Your task to perform on an android device: open wifi settings Image 0: 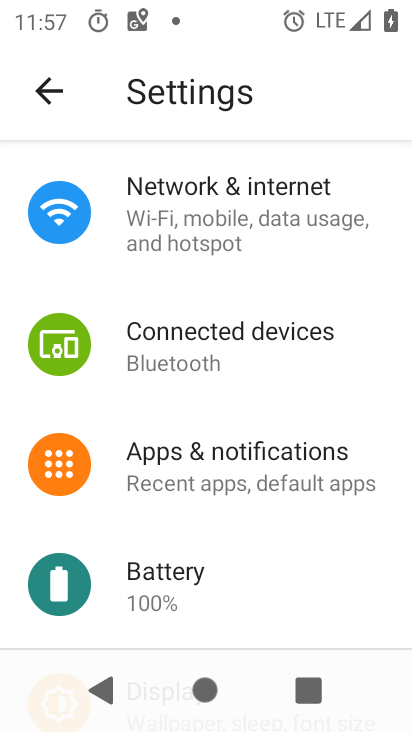
Step 0: click (159, 224)
Your task to perform on an android device: open wifi settings Image 1: 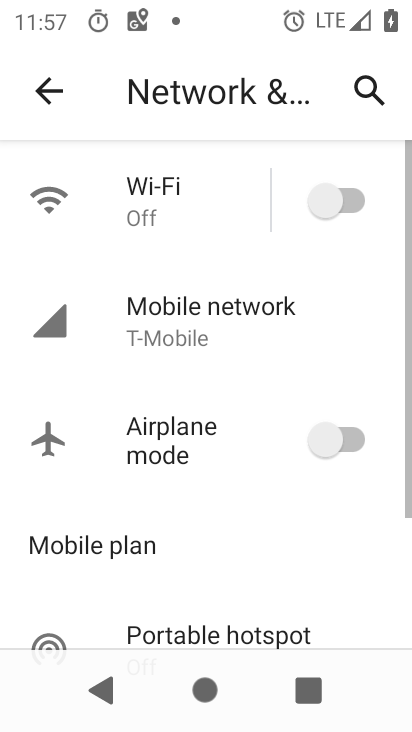
Step 1: click (128, 197)
Your task to perform on an android device: open wifi settings Image 2: 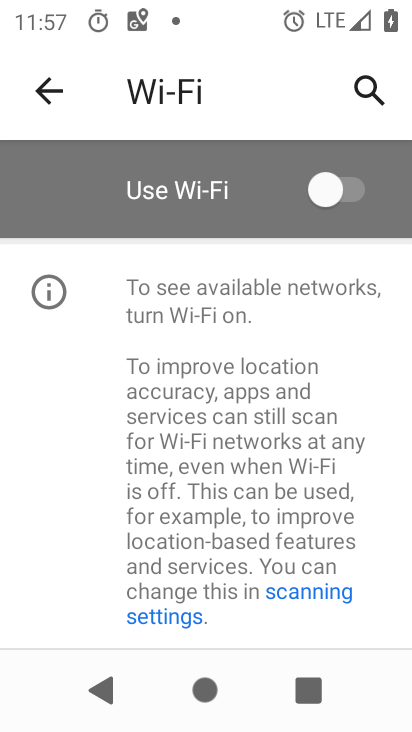
Step 2: task complete